Your task to perform on an android device: Search for pizza restaurants on Maps Image 0: 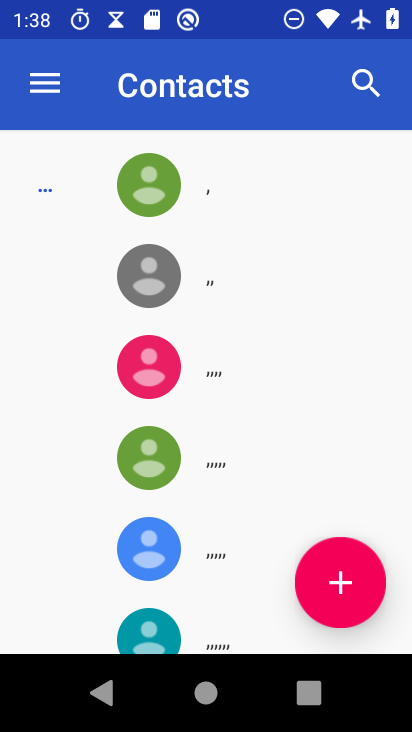
Step 0: press home button
Your task to perform on an android device: Search for pizza restaurants on Maps Image 1: 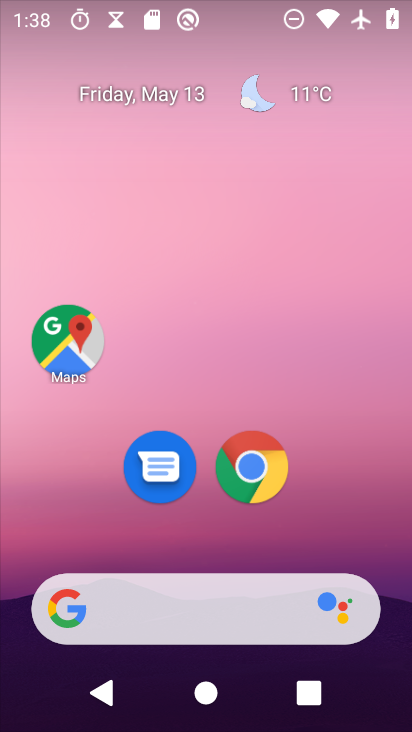
Step 1: click (73, 347)
Your task to perform on an android device: Search for pizza restaurants on Maps Image 2: 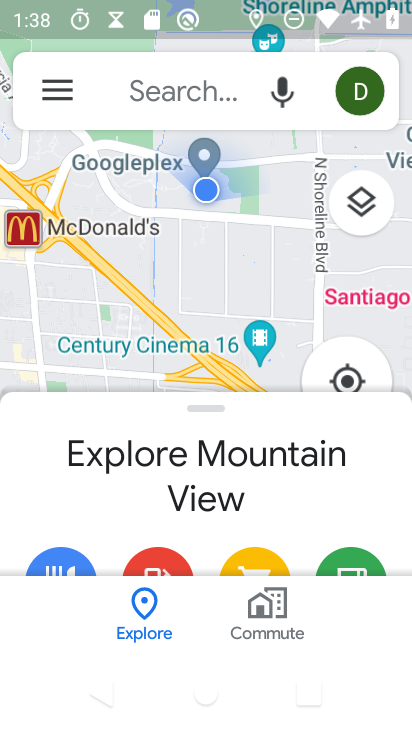
Step 2: click (182, 86)
Your task to perform on an android device: Search for pizza restaurants on Maps Image 3: 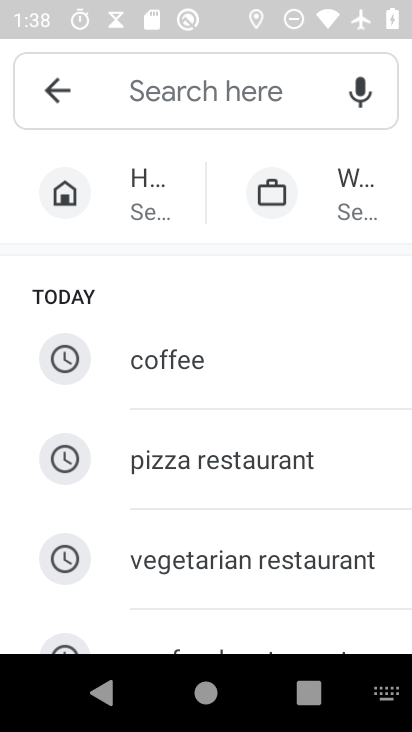
Step 3: click (210, 464)
Your task to perform on an android device: Search for pizza restaurants on Maps Image 4: 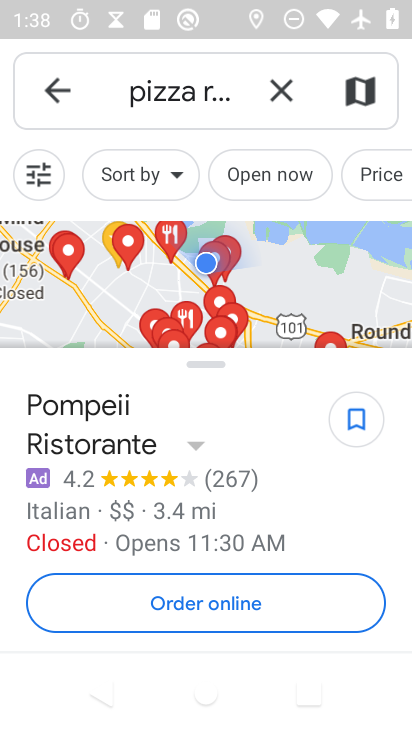
Step 4: task complete